Your task to perform on an android device: Open Chrome and go to the settings page Image 0: 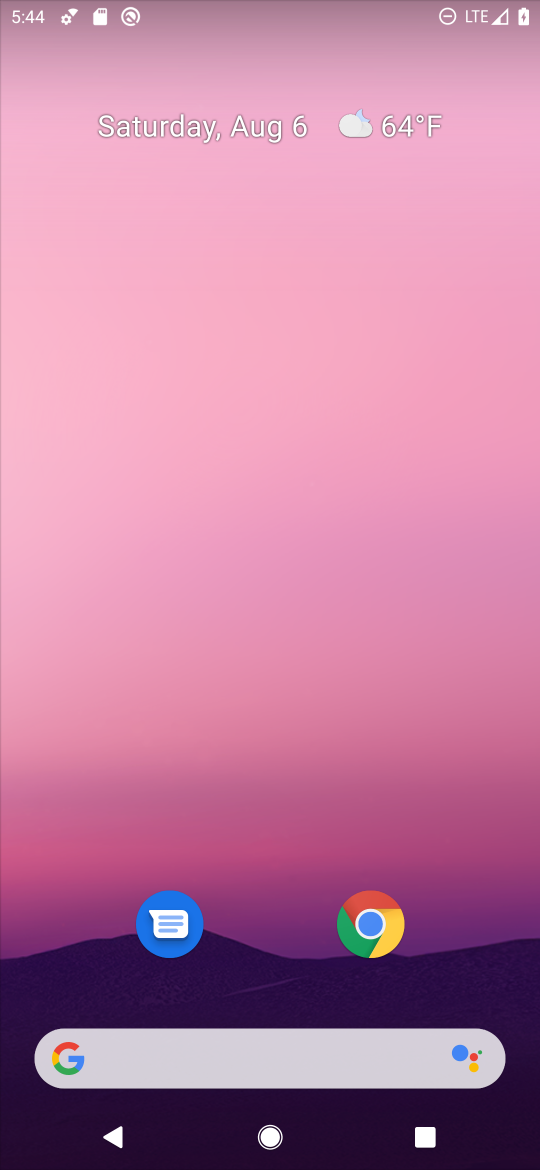
Step 0: click (376, 921)
Your task to perform on an android device: Open Chrome and go to the settings page Image 1: 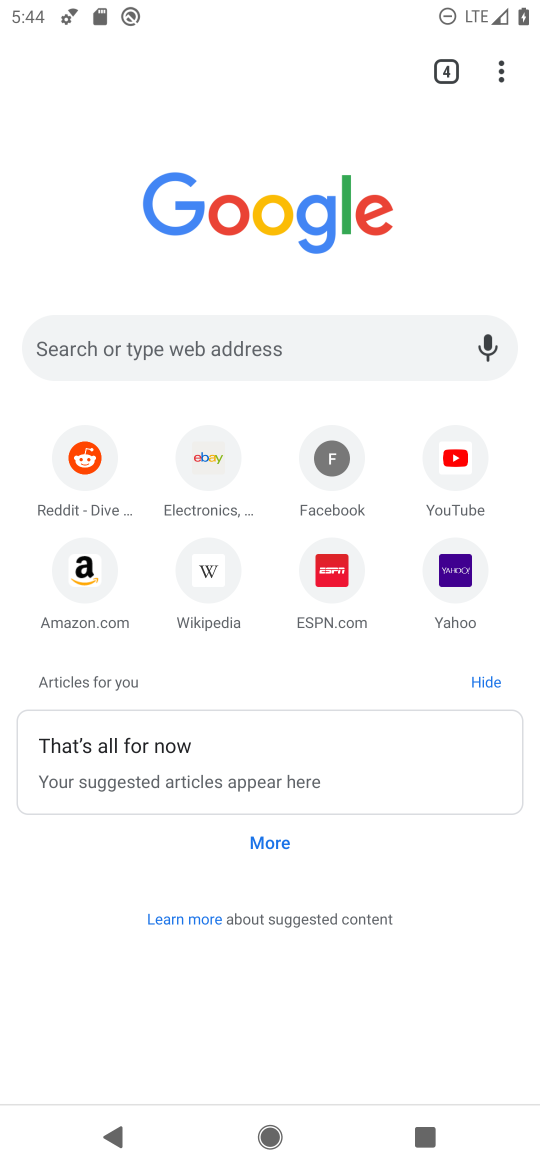
Step 1: click (503, 63)
Your task to perform on an android device: Open Chrome and go to the settings page Image 2: 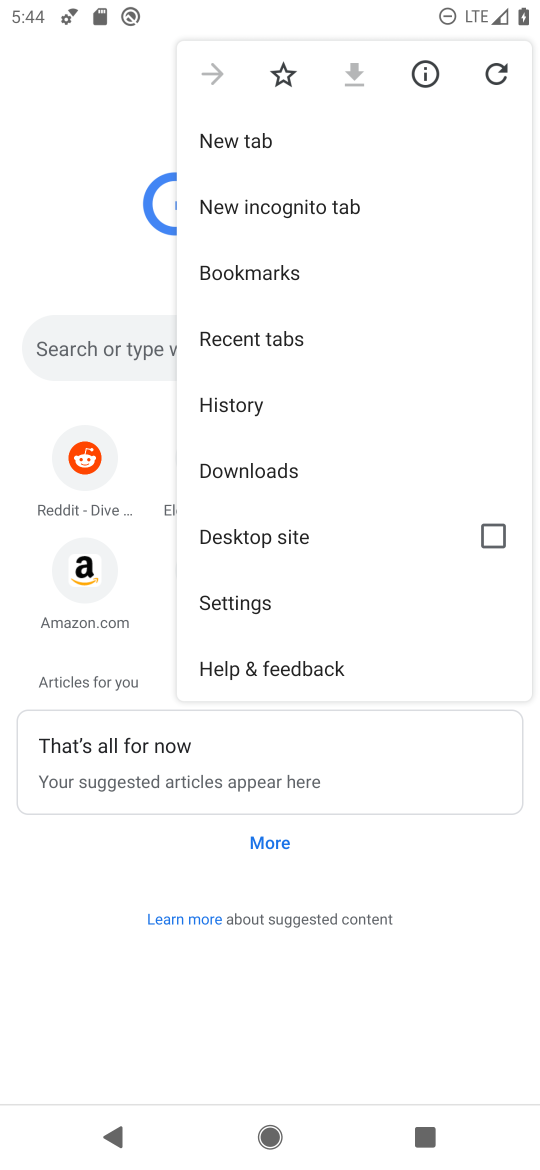
Step 2: click (235, 600)
Your task to perform on an android device: Open Chrome and go to the settings page Image 3: 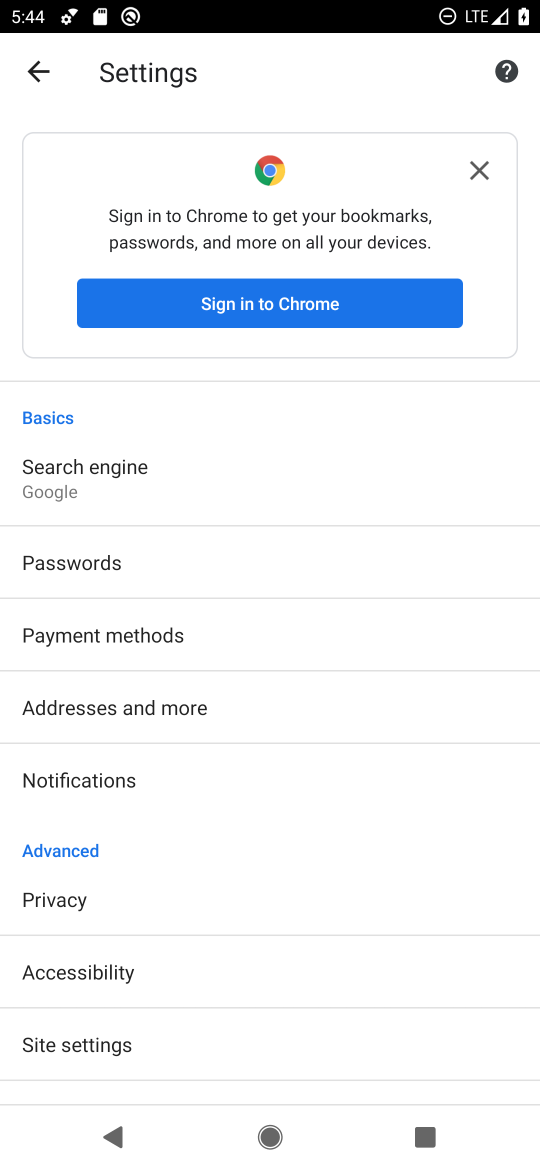
Step 3: task complete